Your task to perform on an android device: Open Google Maps and go to "Timeline" Image 0: 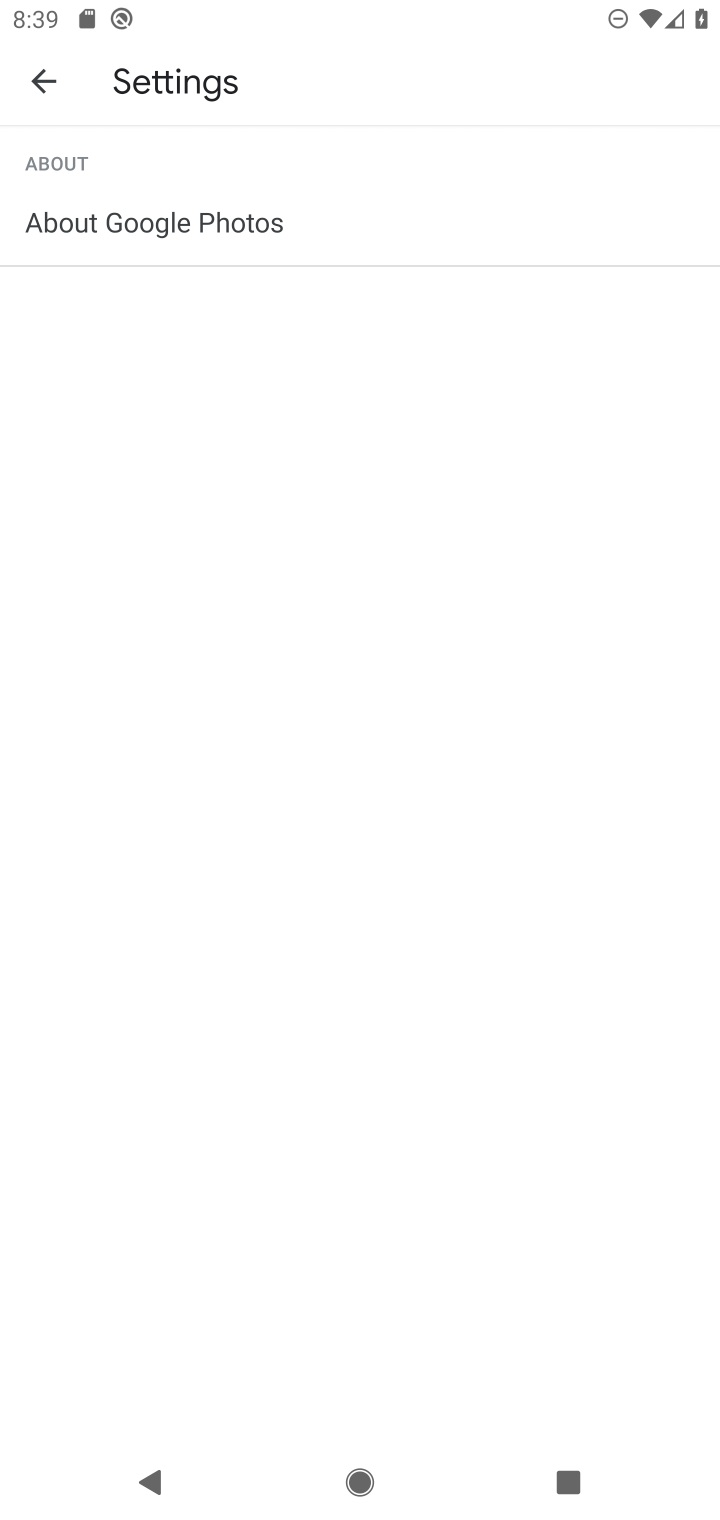
Step 0: press home button
Your task to perform on an android device: Open Google Maps and go to "Timeline" Image 1: 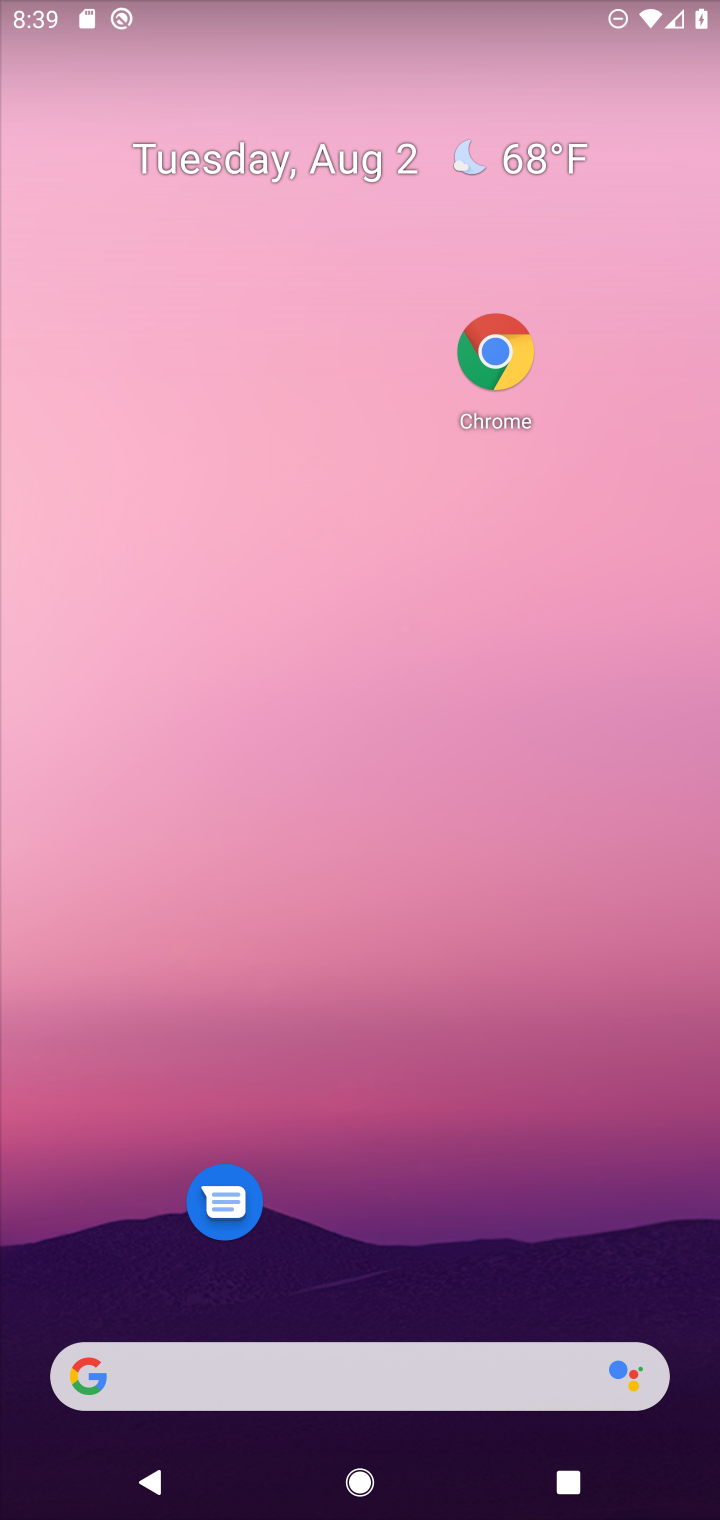
Step 1: drag from (392, 1092) to (300, 43)
Your task to perform on an android device: Open Google Maps and go to "Timeline" Image 2: 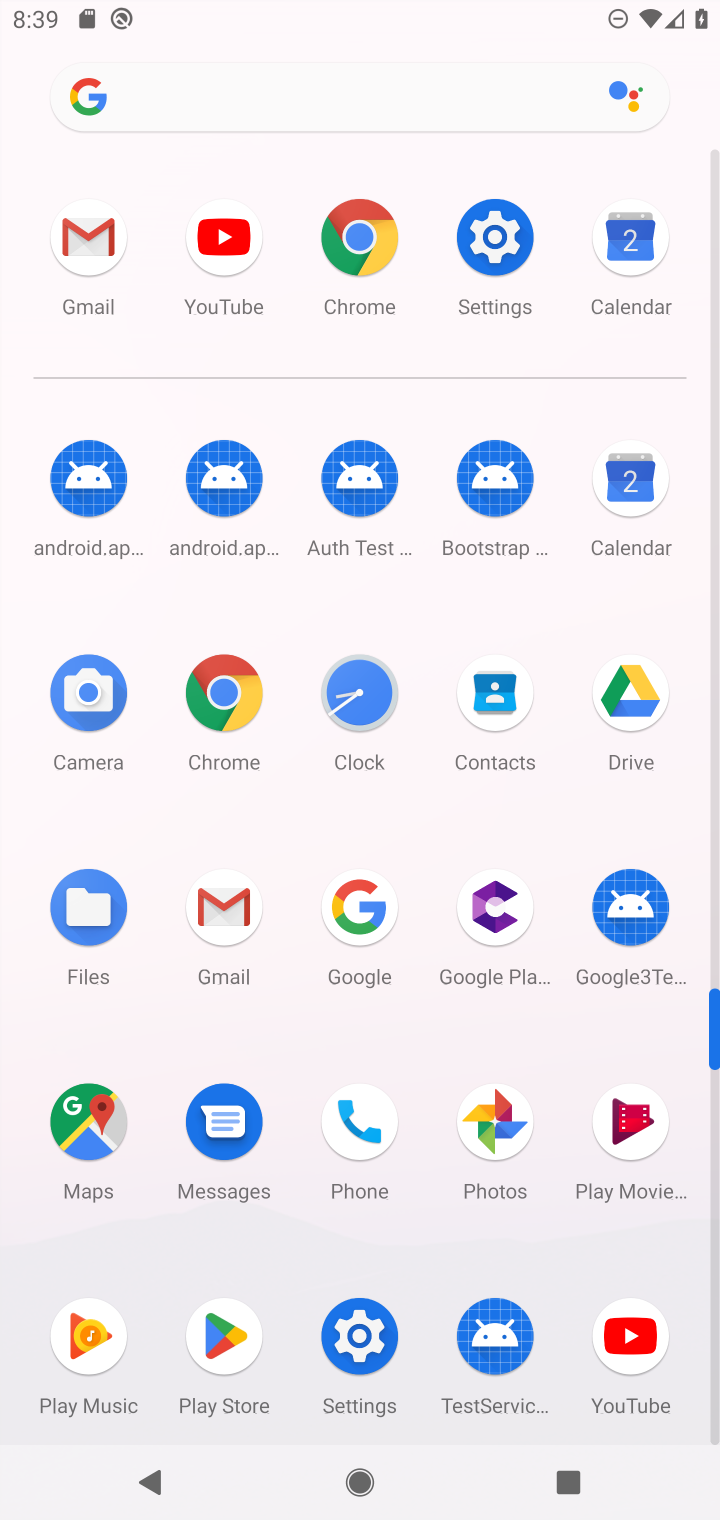
Step 2: click (85, 1135)
Your task to perform on an android device: Open Google Maps and go to "Timeline" Image 3: 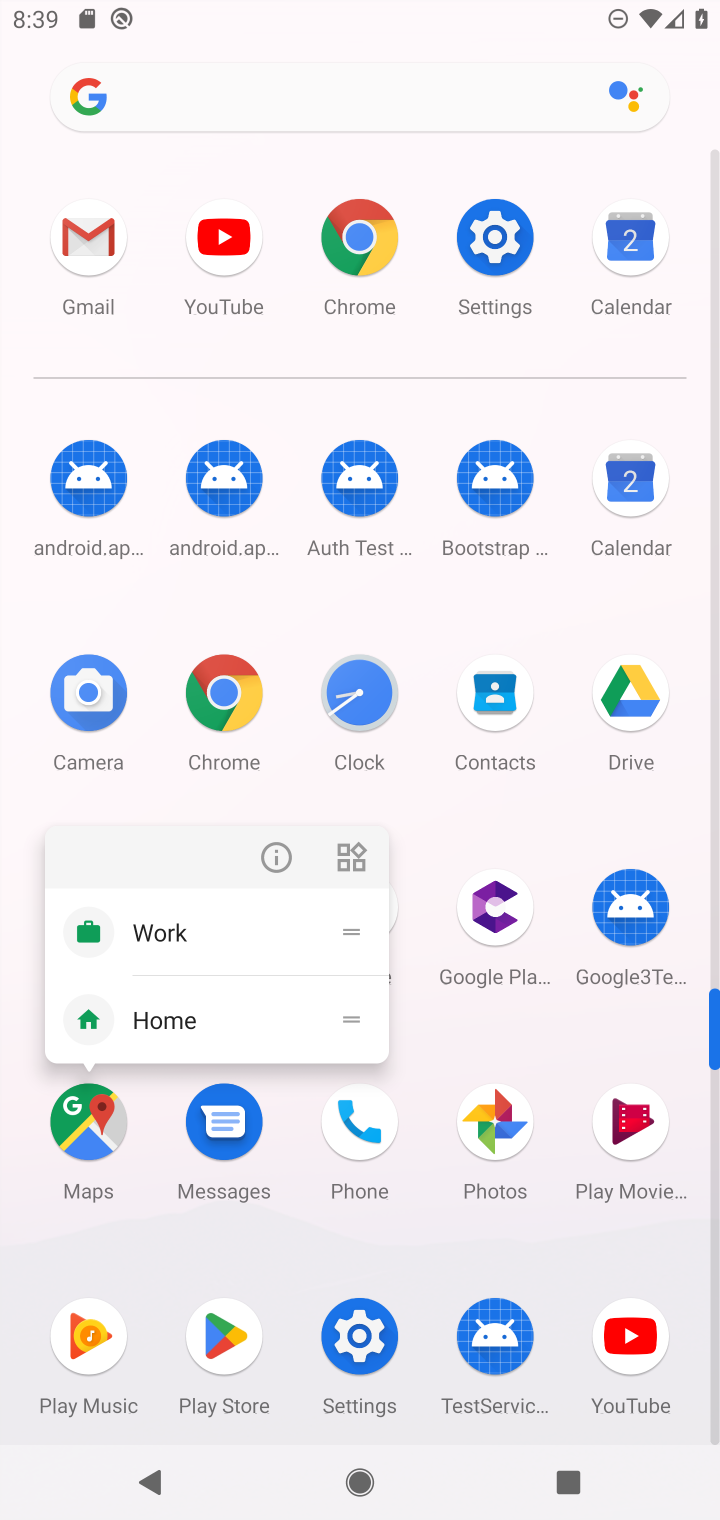
Step 3: click (85, 1135)
Your task to perform on an android device: Open Google Maps and go to "Timeline" Image 4: 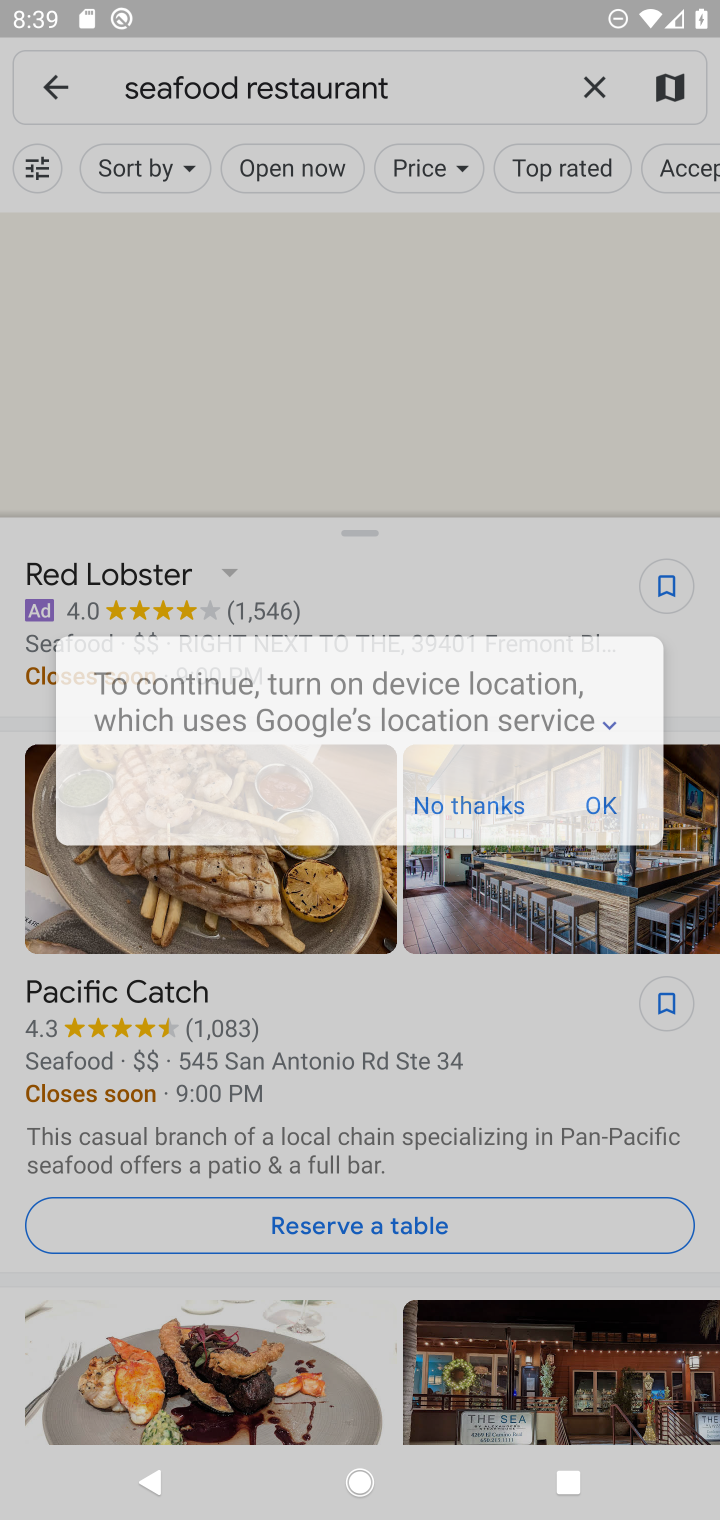
Step 4: click (585, 92)
Your task to perform on an android device: Open Google Maps and go to "Timeline" Image 5: 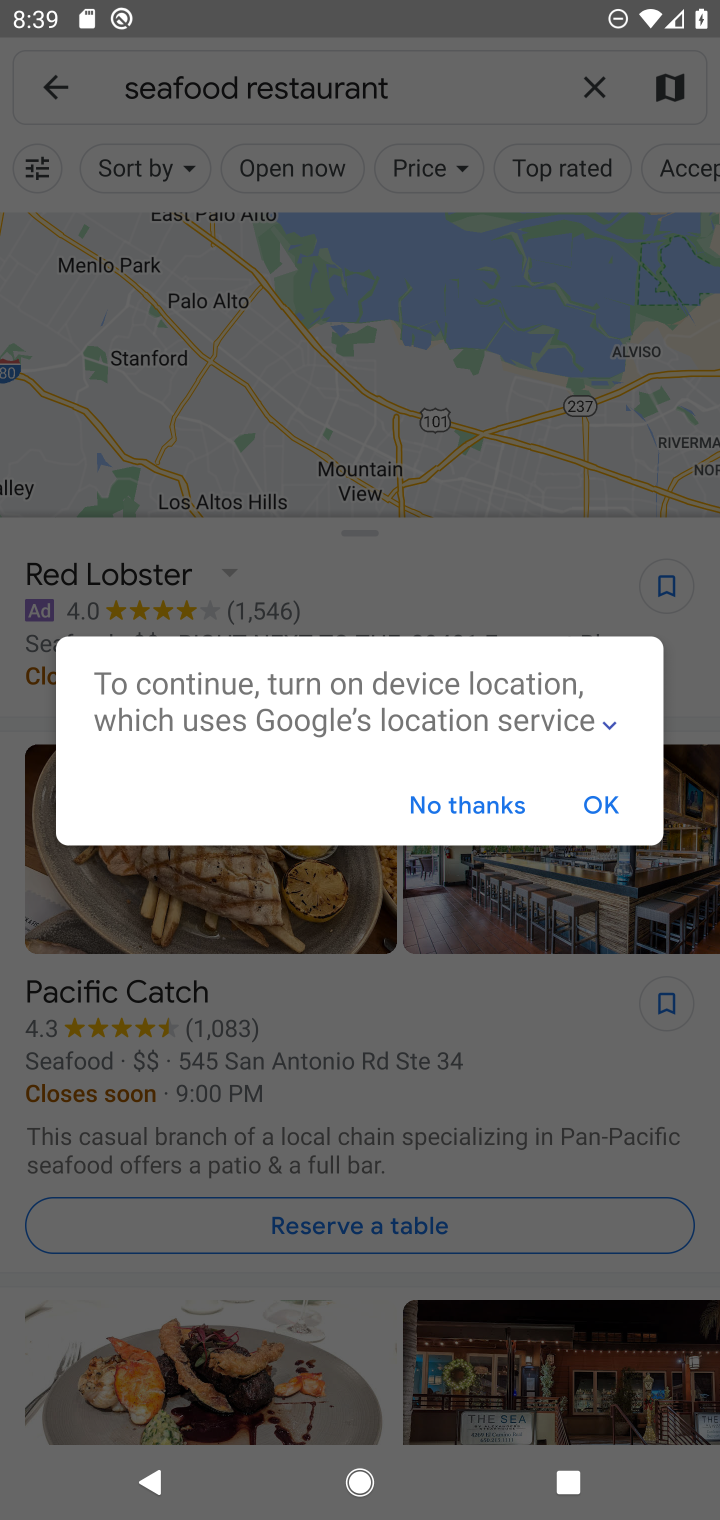
Step 5: click (604, 99)
Your task to perform on an android device: Open Google Maps and go to "Timeline" Image 6: 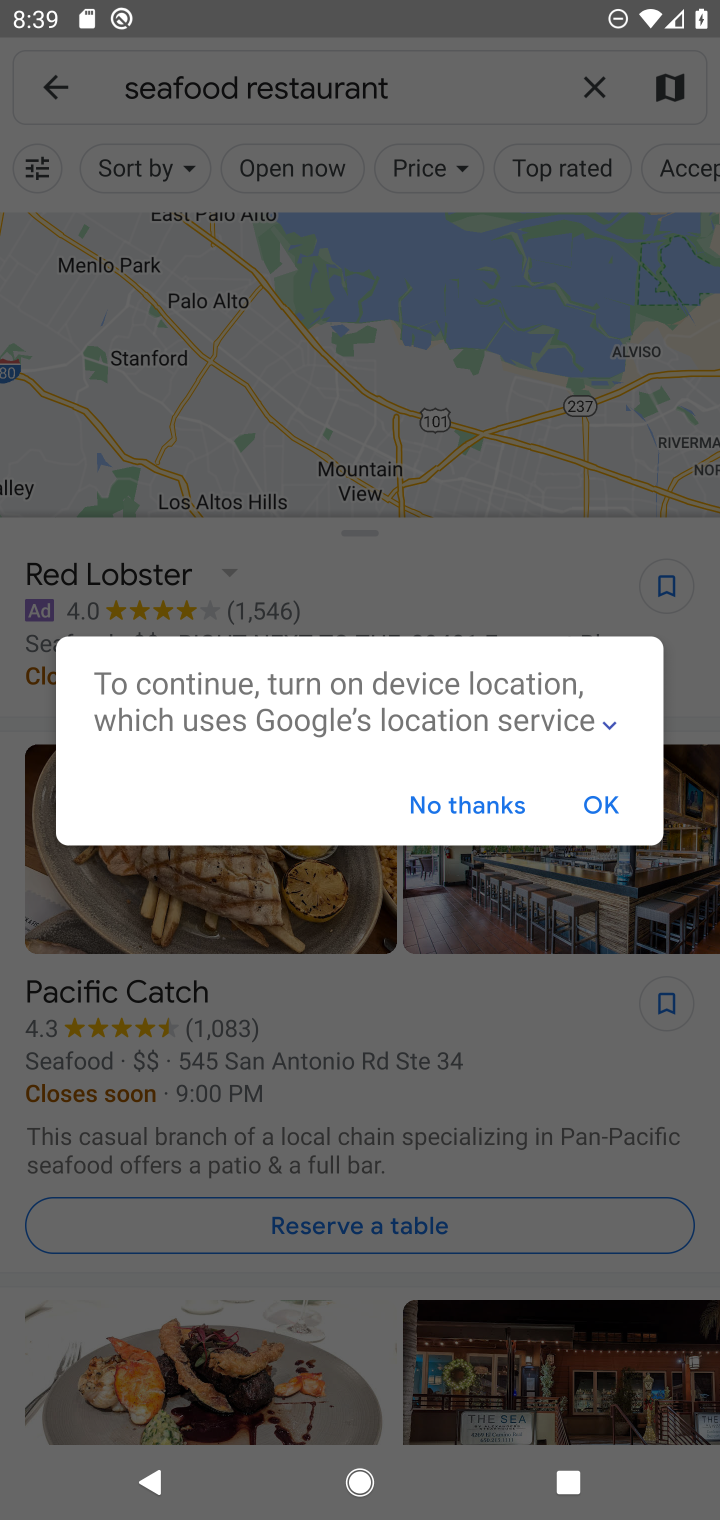
Step 6: click (432, 807)
Your task to perform on an android device: Open Google Maps and go to "Timeline" Image 7: 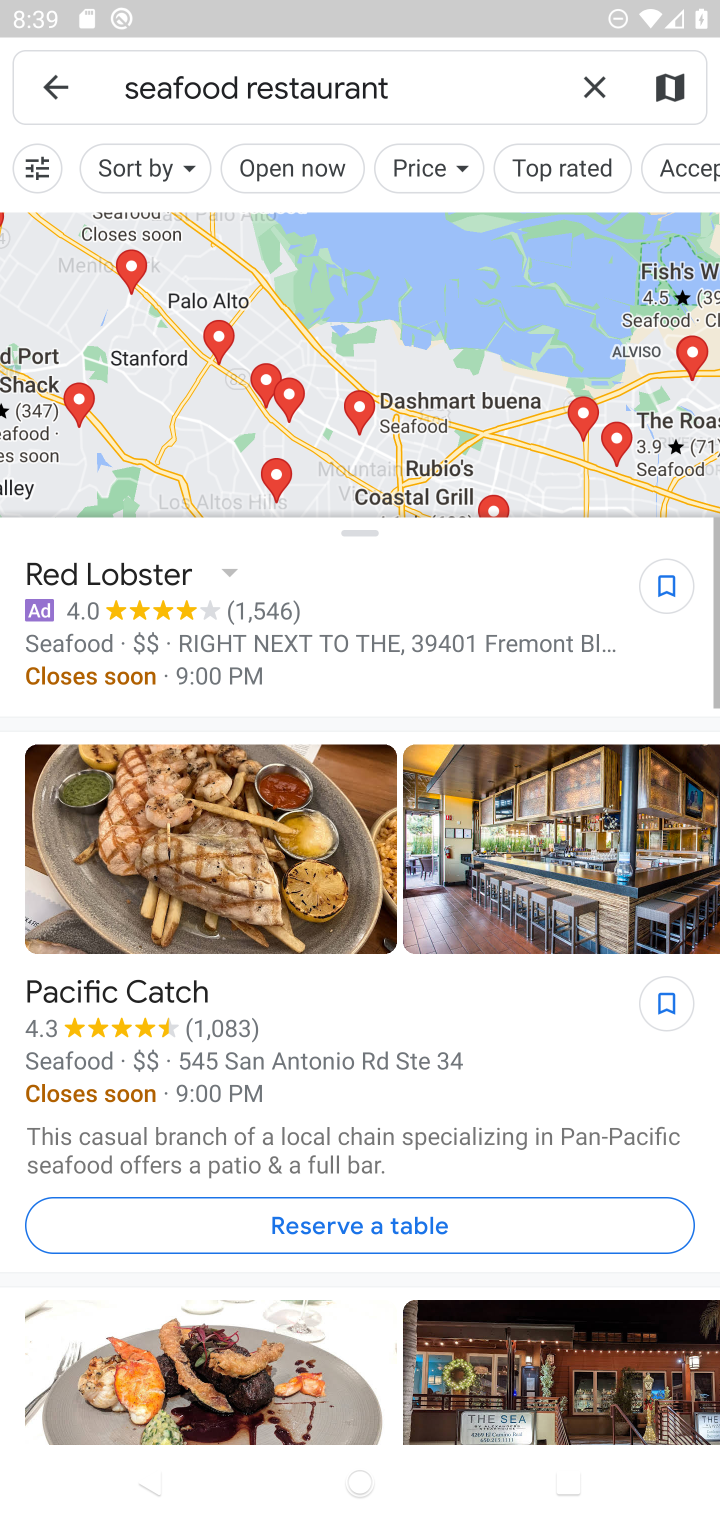
Step 7: click (596, 95)
Your task to perform on an android device: Open Google Maps and go to "Timeline" Image 8: 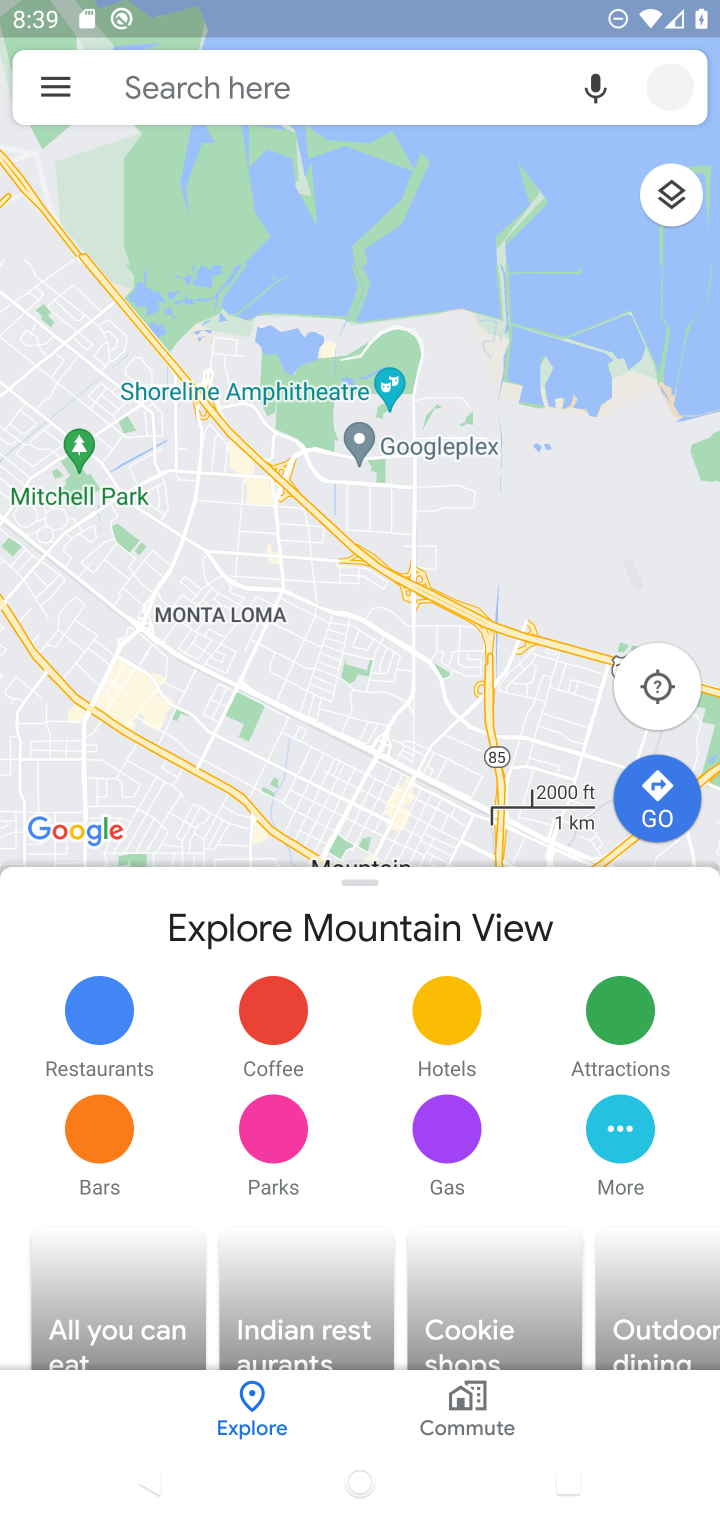
Step 8: click (51, 94)
Your task to perform on an android device: Open Google Maps and go to "Timeline" Image 9: 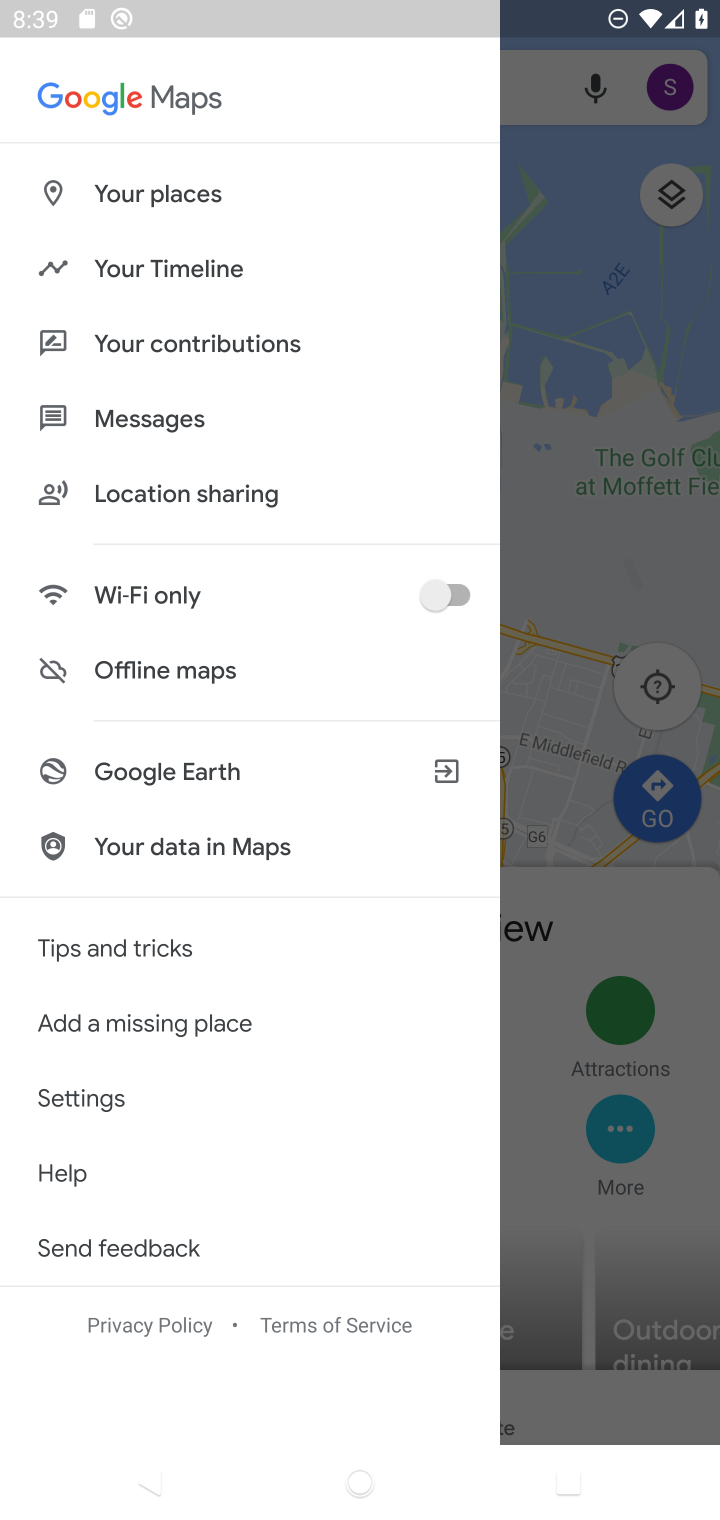
Step 9: click (86, 267)
Your task to perform on an android device: Open Google Maps and go to "Timeline" Image 10: 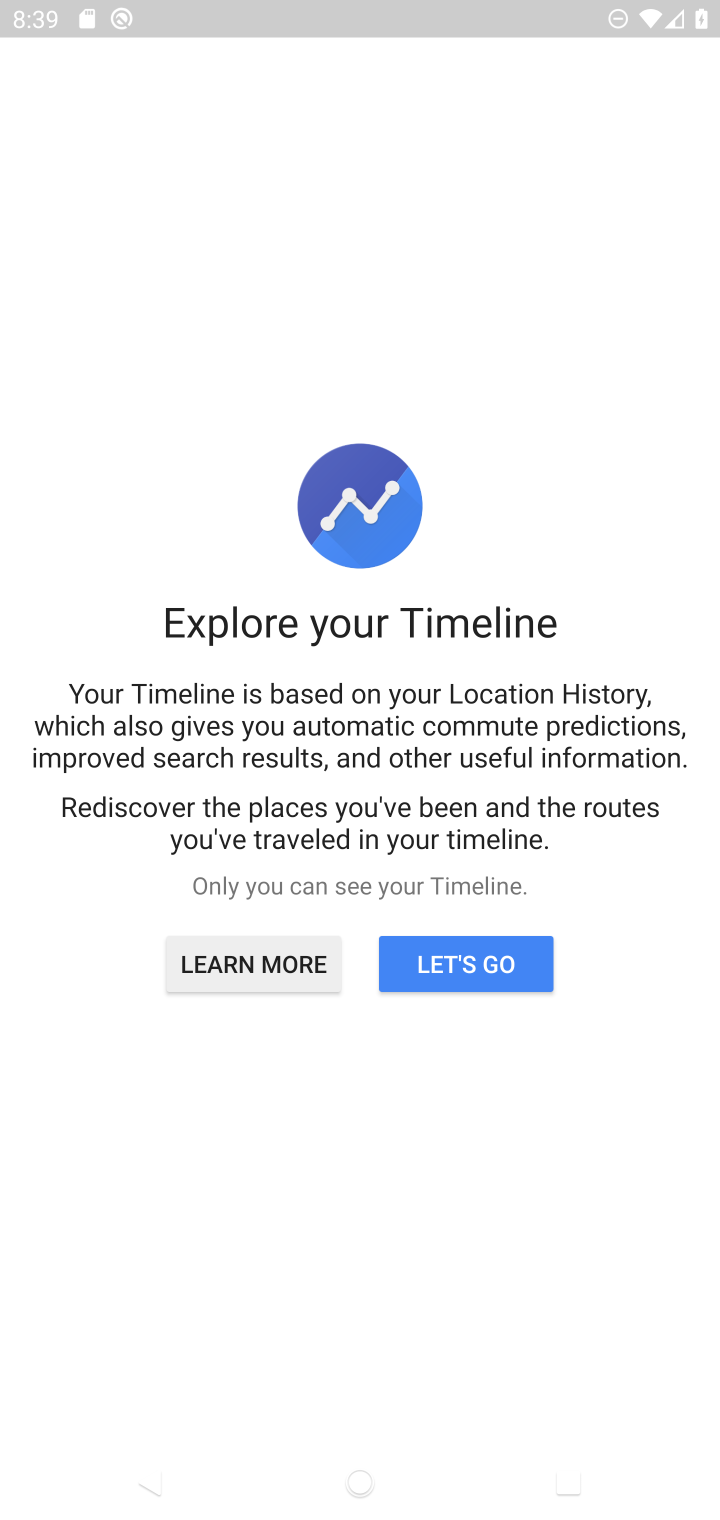
Step 10: click (511, 949)
Your task to perform on an android device: Open Google Maps and go to "Timeline" Image 11: 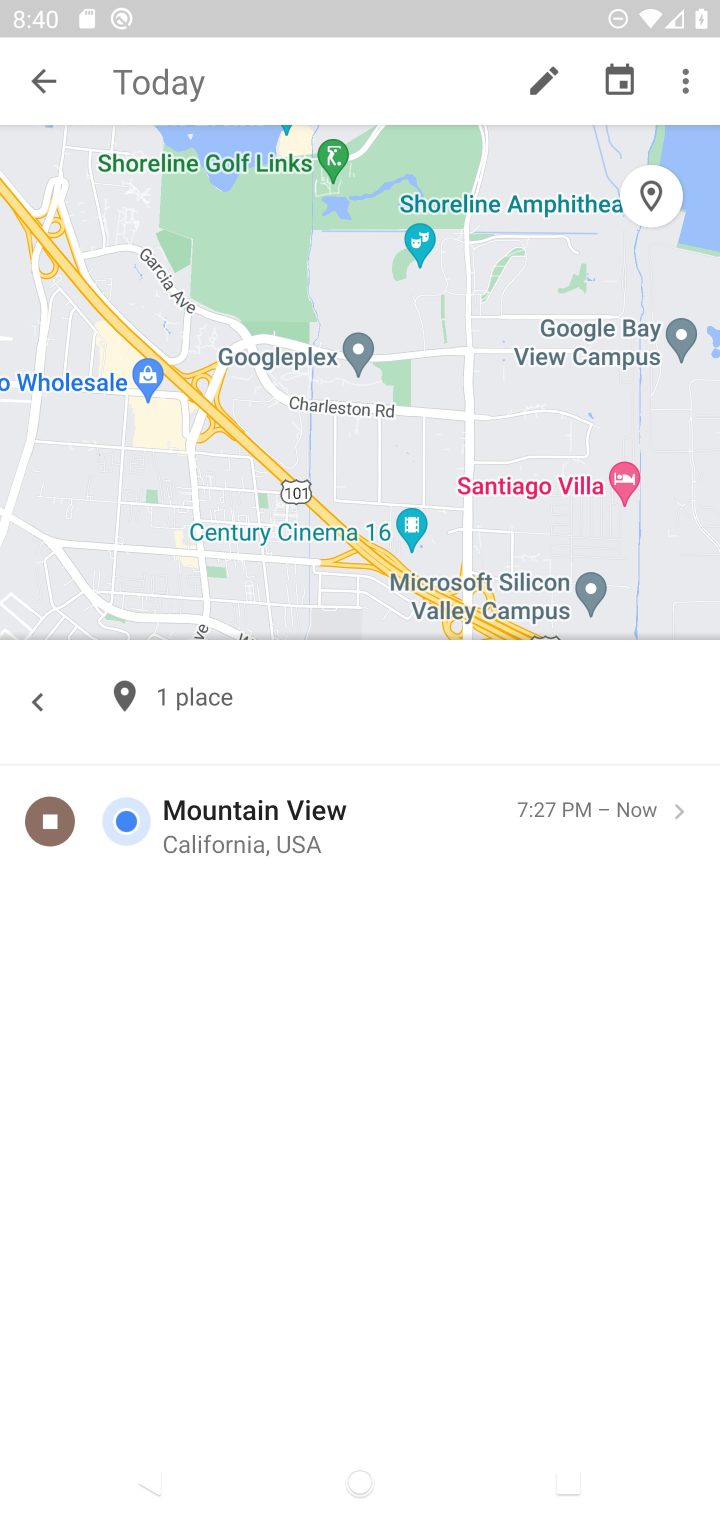
Step 11: task complete